Your task to perform on an android device: turn on wifi Image 0: 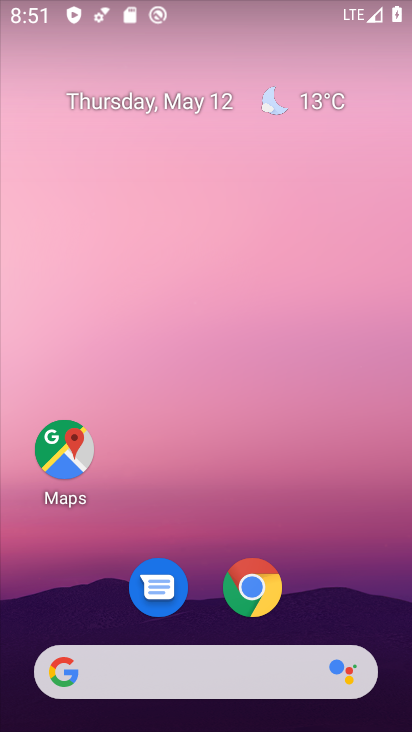
Step 0: drag from (336, 588) to (308, 4)
Your task to perform on an android device: turn on wifi Image 1: 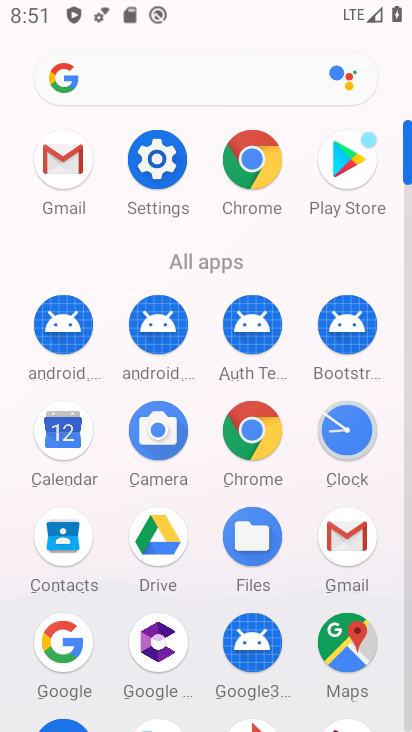
Step 1: click (154, 195)
Your task to perform on an android device: turn on wifi Image 2: 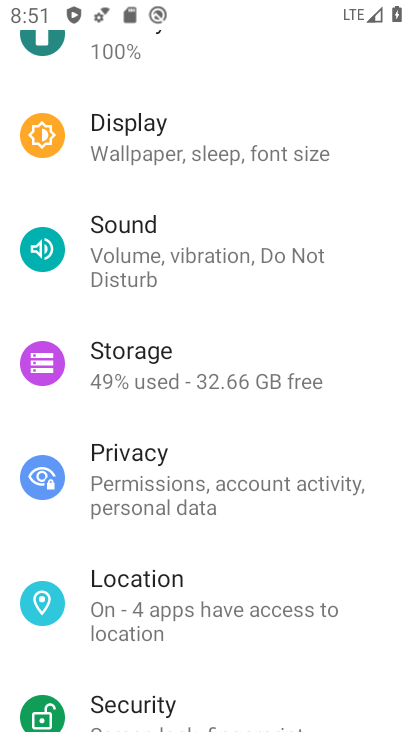
Step 2: drag from (156, 191) to (135, 654)
Your task to perform on an android device: turn on wifi Image 3: 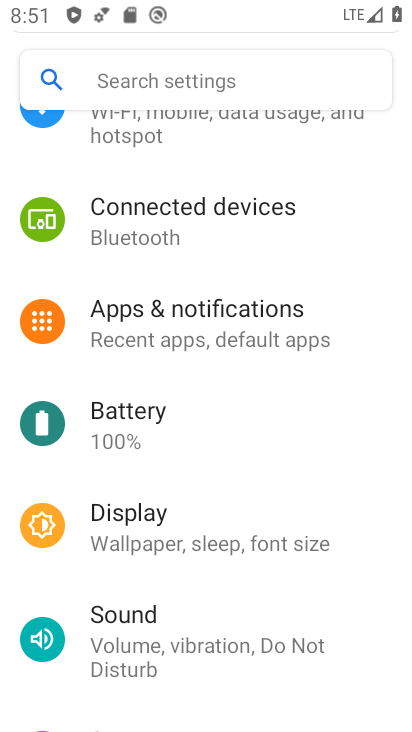
Step 3: drag from (185, 197) to (198, 709)
Your task to perform on an android device: turn on wifi Image 4: 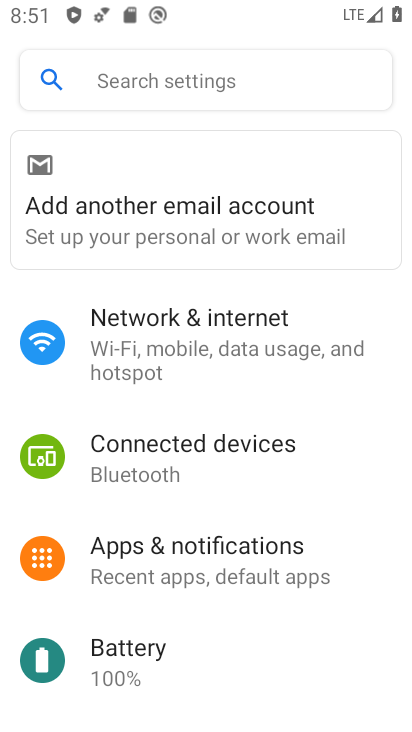
Step 4: drag from (208, 237) to (182, 688)
Your task to perform on an android device: turn on wifi Image 5: 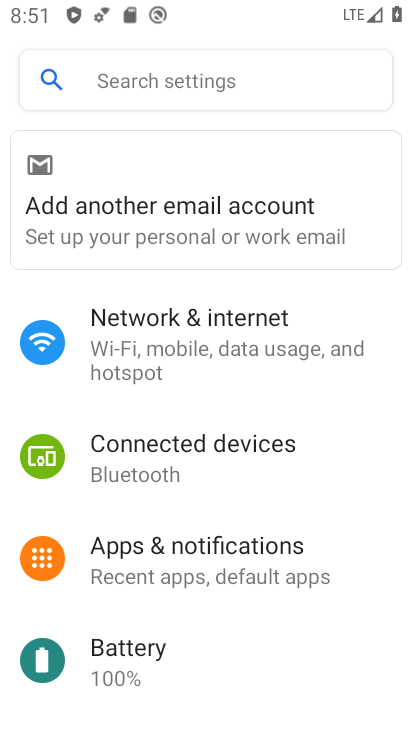
Step 5: click (140, 340)
Your task to perform on an android device: turn on wifi Image 6: 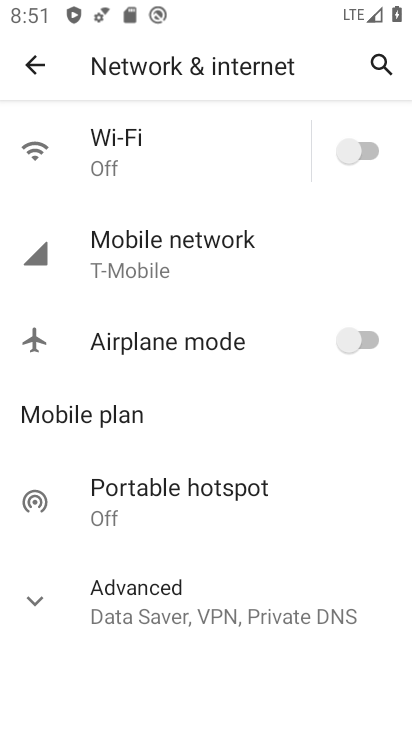
Step 6: click (357, 157)
Your task to perform on an android device: turn on wifi Image 7: 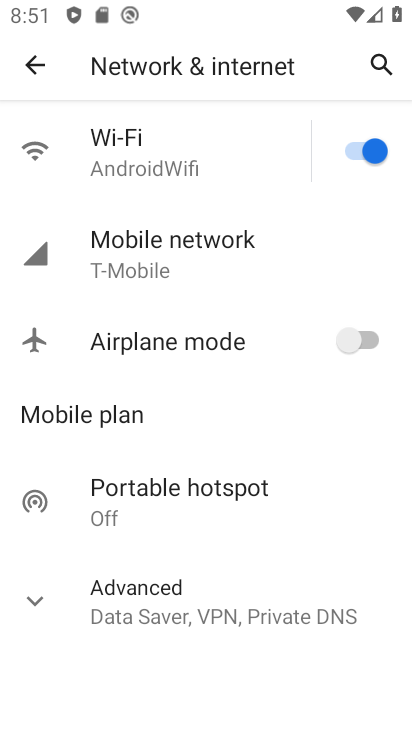
Step 7: task complete